Your task to perform on an android device: Search for macbook on newegg.com, select the first entry, and add it to the cart. Image 0: 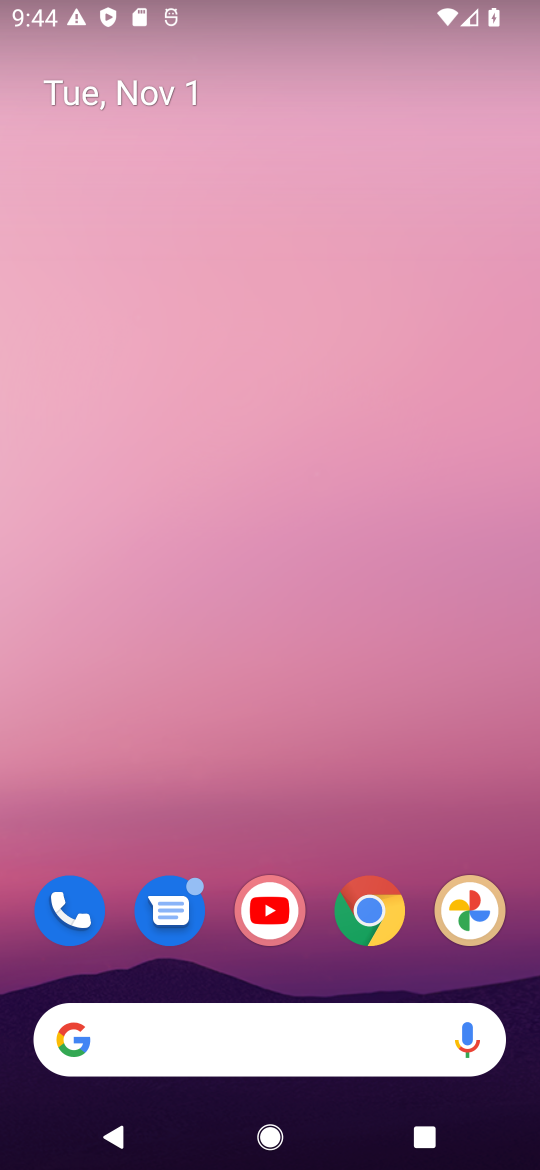
Step 0: click (377, 912)
Your task to perform on an android device: Search for macbook on newegg.com, select the first entry, and add it to the cart. Image 1: 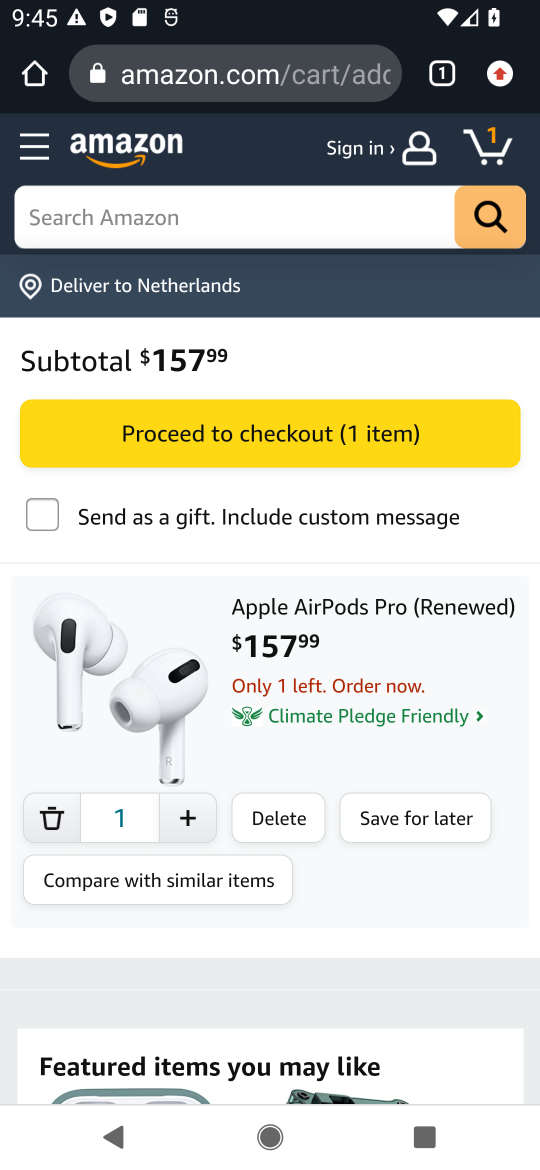
Step 1: click (264, 66)
Your task to perform on an android device: Search for macbook on newegg.com, select the first entry, and add it to the cart. Image 2: 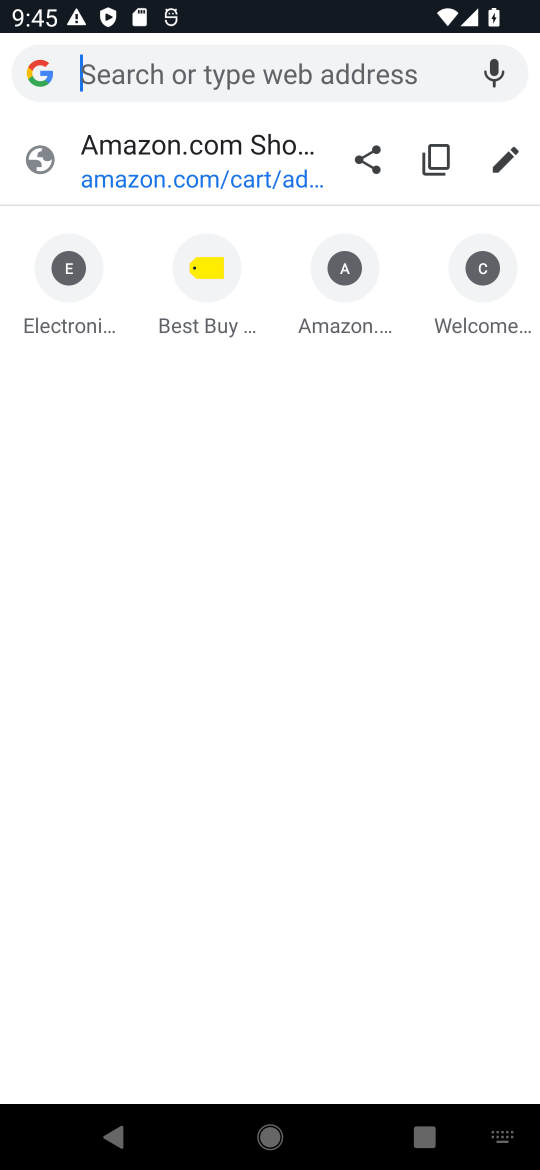
Step 2: type "newegg.com"
Your task to perform on an android device: Search for macbook on newegg.com, select the first entry, and add it to the cart. Image 3: 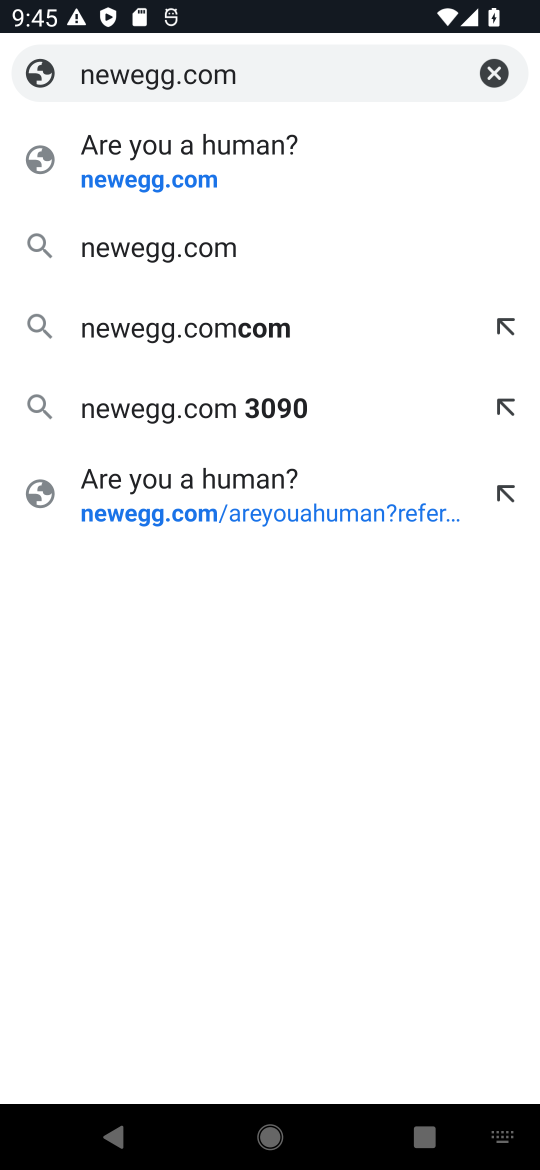
Step 3: click (112, 249)
Your task to perform on an android device: Search for macbook on newegg.com, select the first entry, and add it to the cart. Image 4: 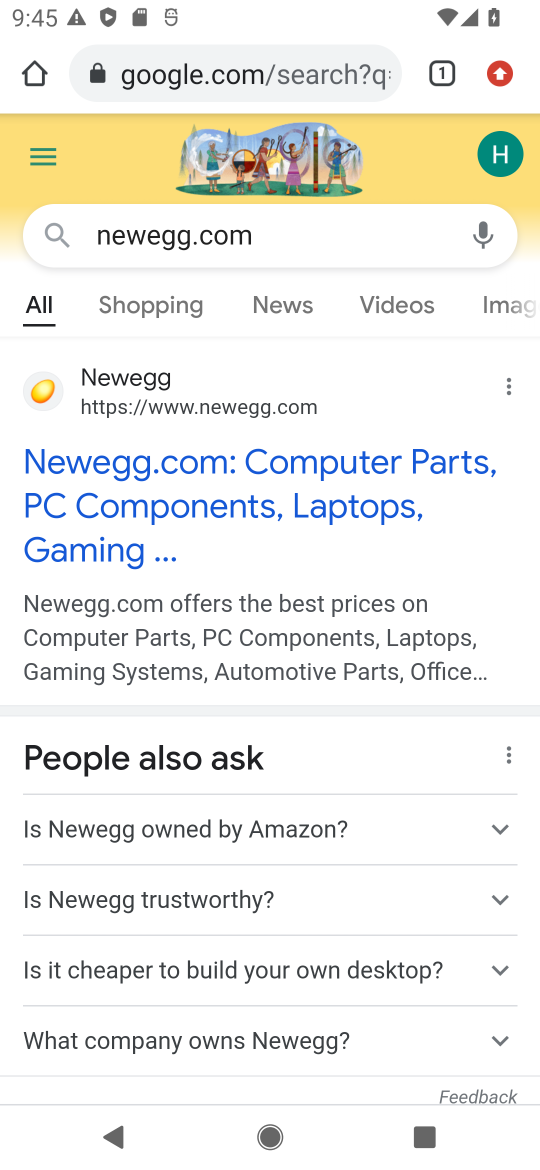
Step 4: click (143, 407)
Your task to perform on an android device: Search for macbook on newegg.com, select the first entry, and add it to the cart. Image 5: 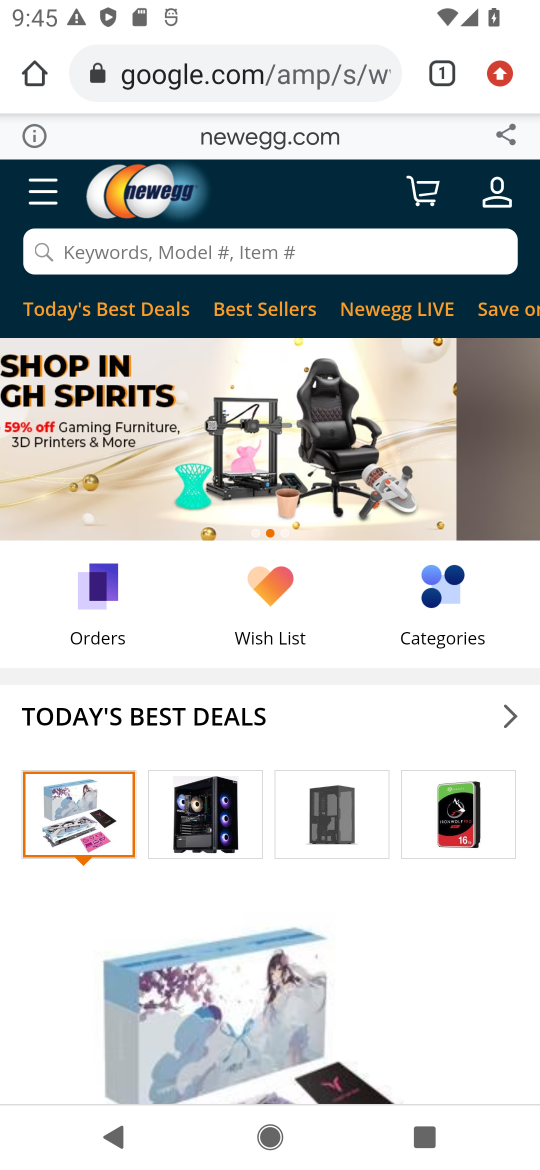
Step 5: click (285, 241)
Your task to perform on an android device: Search for macbook on newegg.com, select the first entry, and add it to the cart. Image 6: 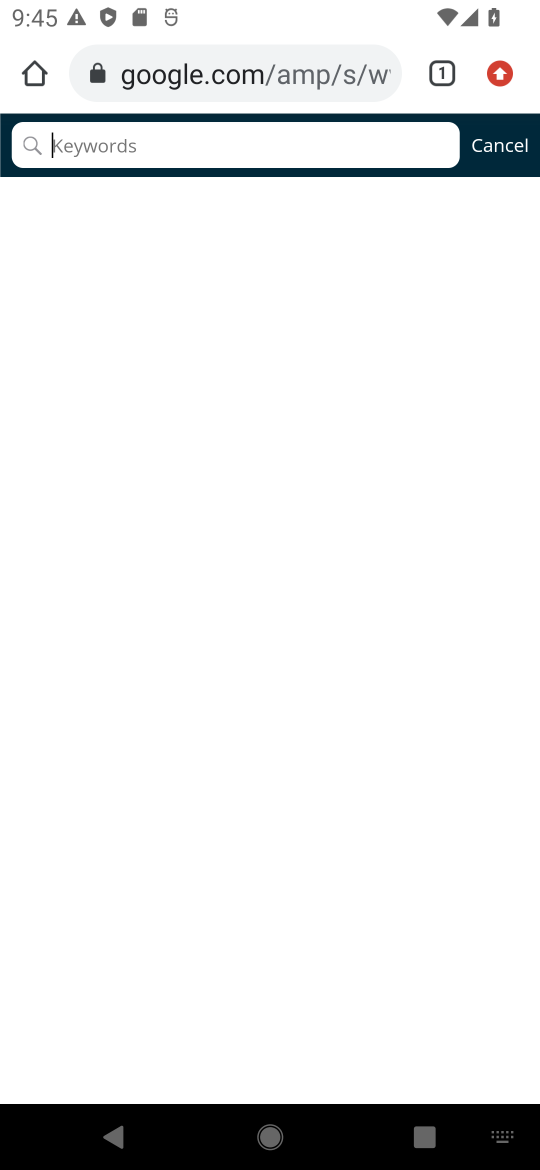
Step 6: type "macbook"
Your task to perform on an android device: Search for macbook on newegg.com, select the first entry, and add it to the cart. Image 7: 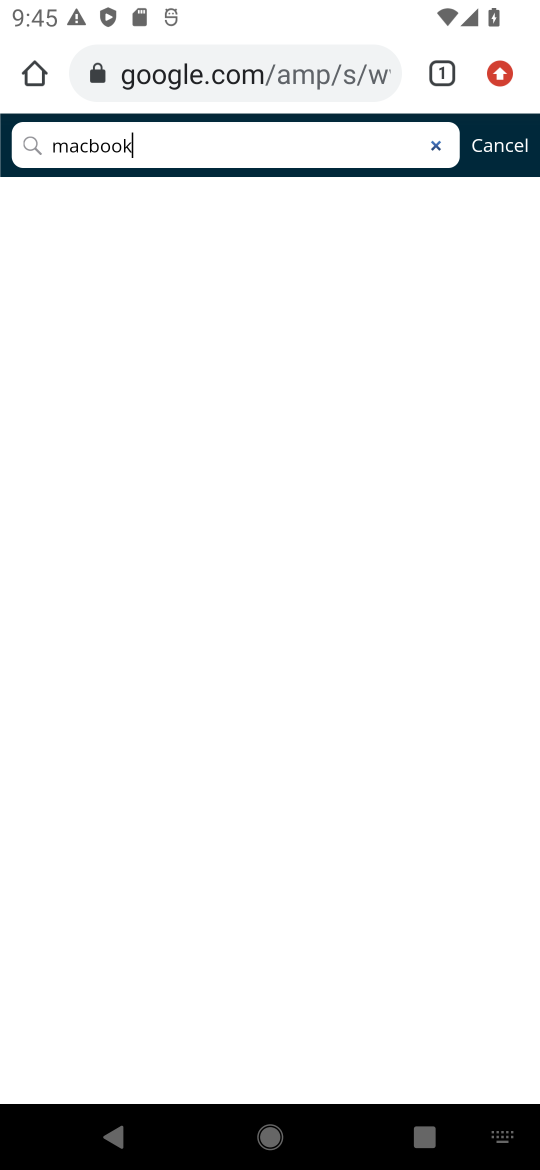
Step 7: click (41, 150)
Your task to perform on an android device: Search for macbook on newegg.com, select the first entry, and add it to the cart. Image 8: 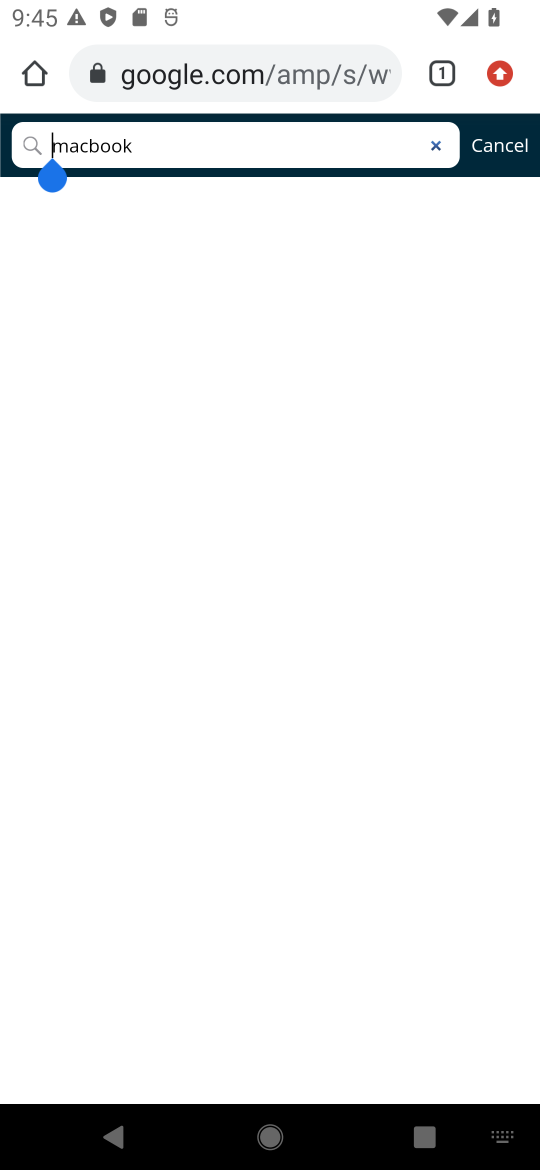
Step 8: task complete